Your task to perform on an android device: delete the emails in spam in the gmail app Image 0: 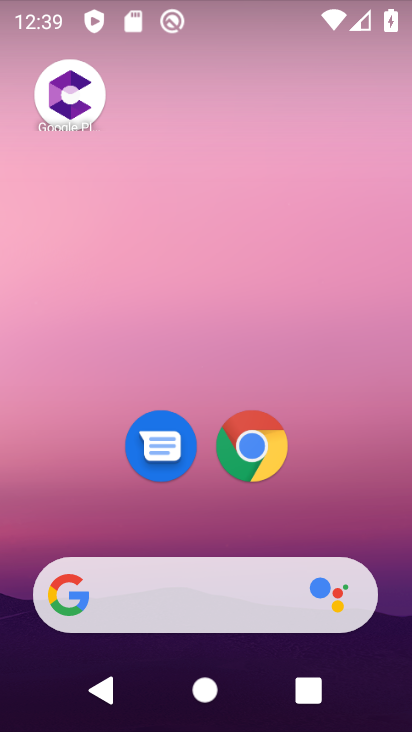
Step 0: drag from (198, 500) to (262, 42)
Your task to perform on an android device: delete the emails in spam in the gmail app Image 1: 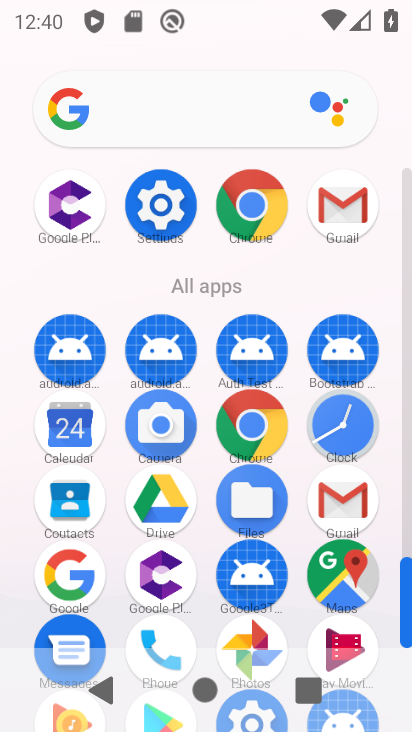
Step 1: click (347, 220)
Your task to perform on an android device: delete the emails in spam in the gmail app Image 2: 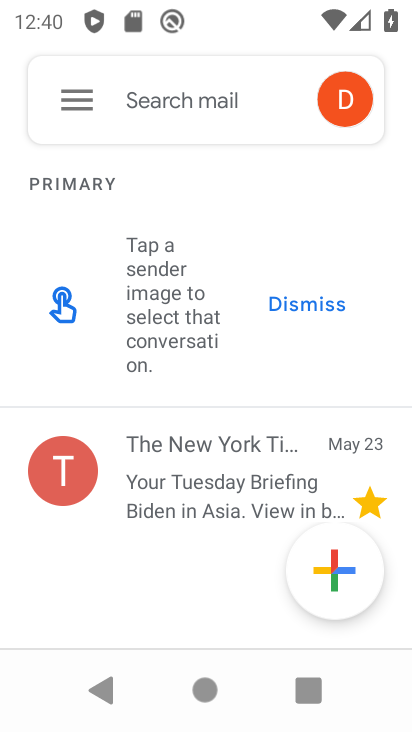
Step 2: click (71, 100)
Your task to perform on an android device: delete the emails in spam in the gmail app Image 3: 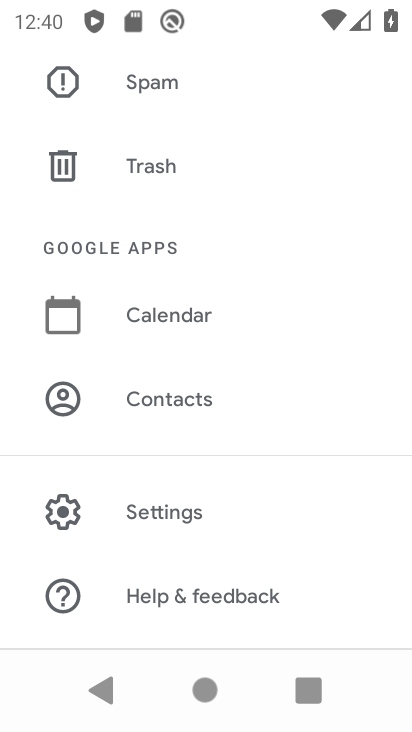
Step 3: click (151, 100)
Your task to perform on an android device: delete the emails in spam in the gmail app Image 4: 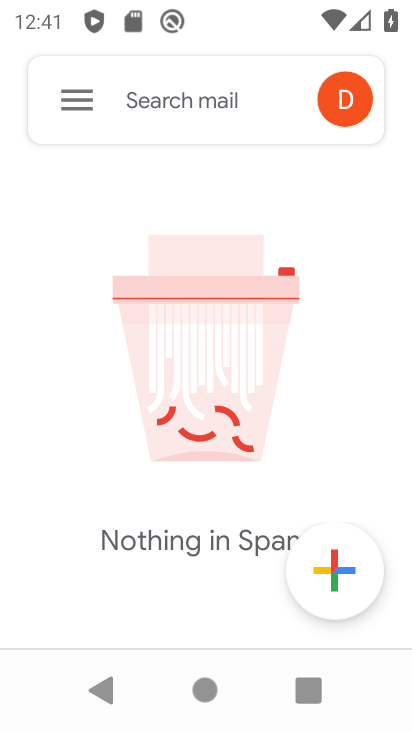
Step 4: task complete